Your task to perform on an android device: turn on improve location accuracy Image 0: 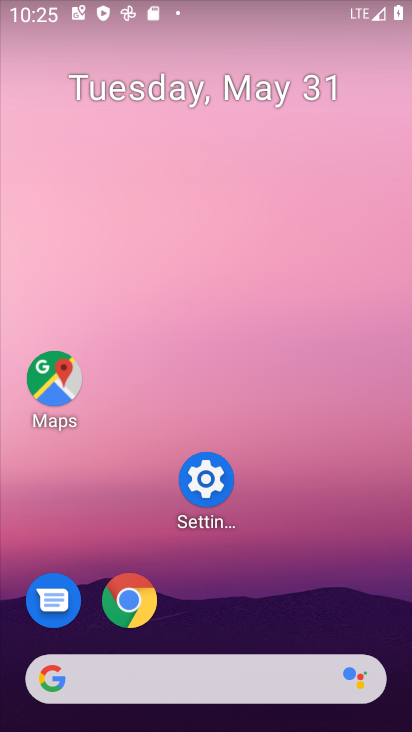
Step 0: drag from (268, 706) to (251, 414)
Your task to perform on an android device: turn on improve location accuracy Image 1: 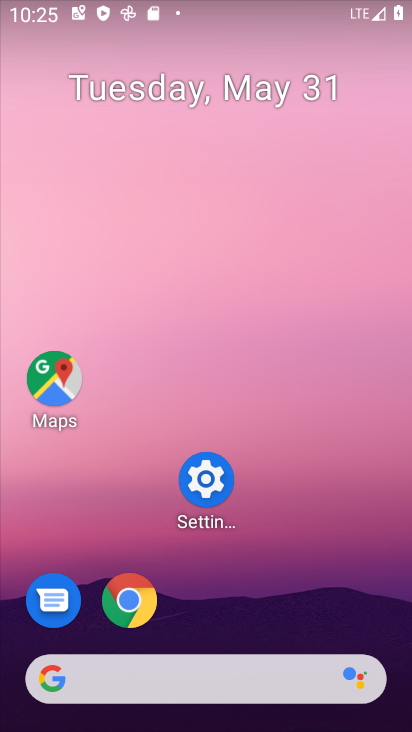
Step 1: drag from (242, 702) to (253, 213)
Your task to perform on an android device: turn on improve location accuracy Image 2: 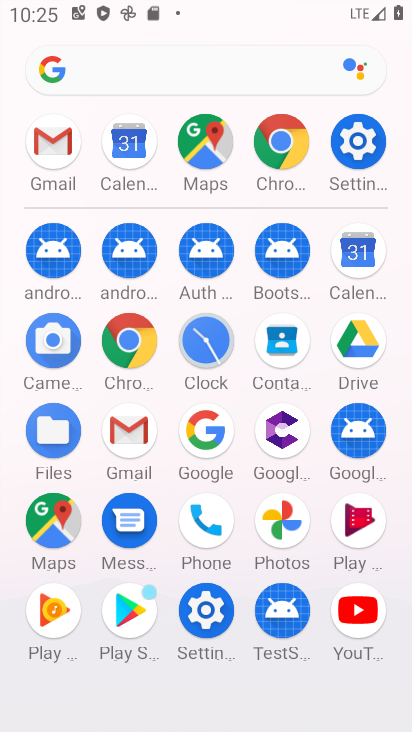
Step 2: click (357, 158)
Your task to perform on an android device: turn on improve location accuracy Image 3: 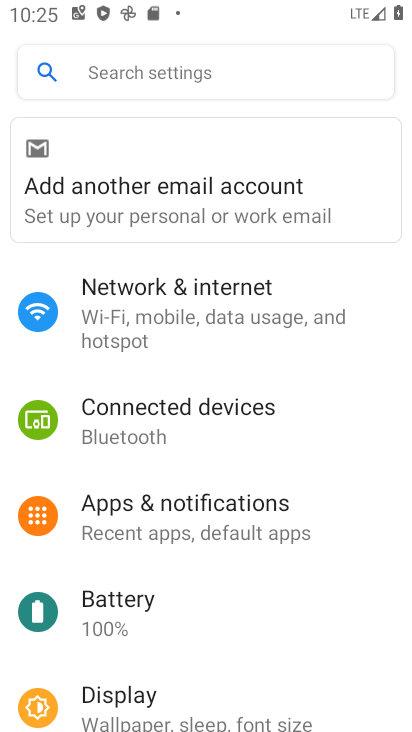
Step 3: click (137, 74)
Your task to perform on an android device: turn on improve location accuracy Image 4: 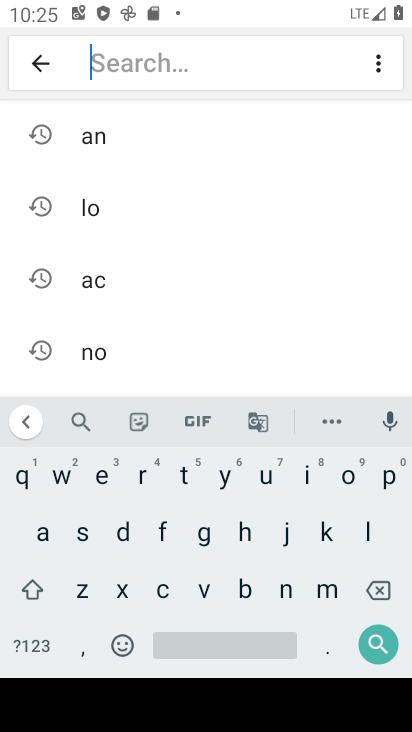
Step 4: click (34, 549)
Your task to perform on an android device: turn on improve location accuracy Image 5: 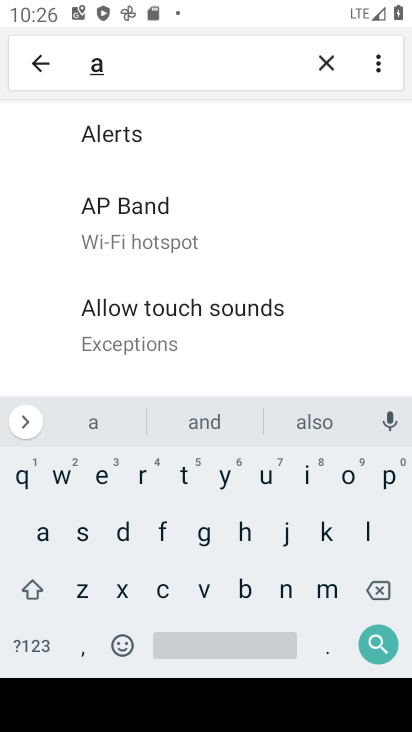
Step 5: click (160, 587)
Your task to perform on an android device: turn on improve location accuracy Image 6: 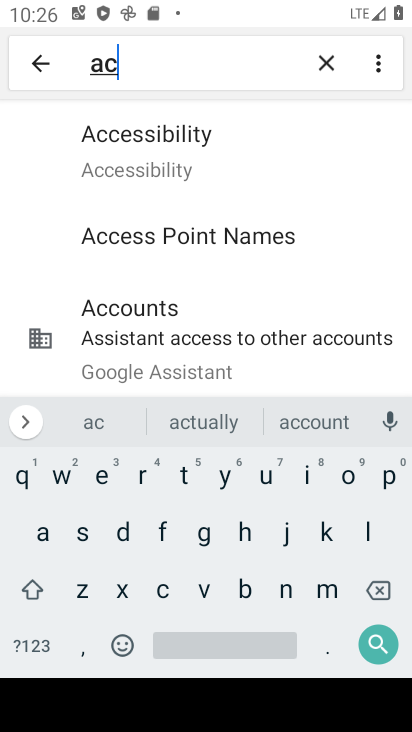
Step 6: click (196, 125)
Your task to perform on an android device: turn on improve location accuracy Image 7: 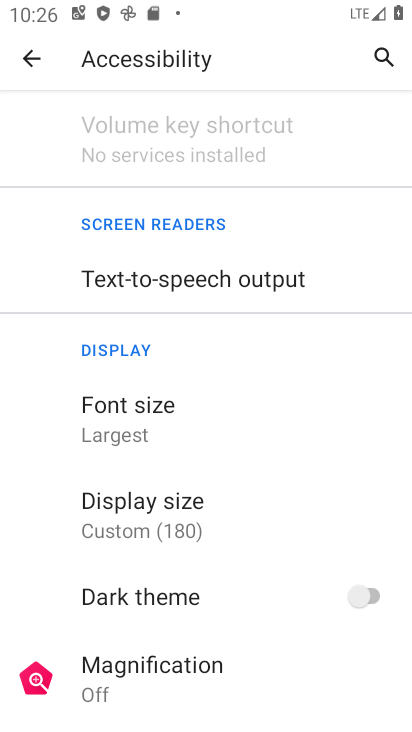
Step 7: task complete